Your task to perform on an android device: change the upload size in google photos Image 0: 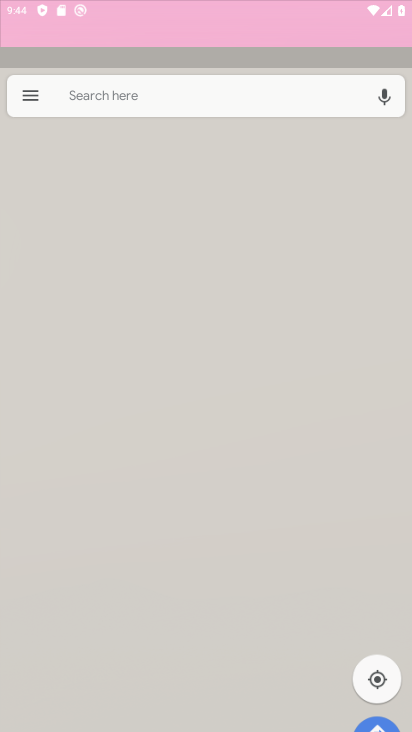
Step 0: press home button
Your task to perform on an android device: change the upload size in google photos Image 1: 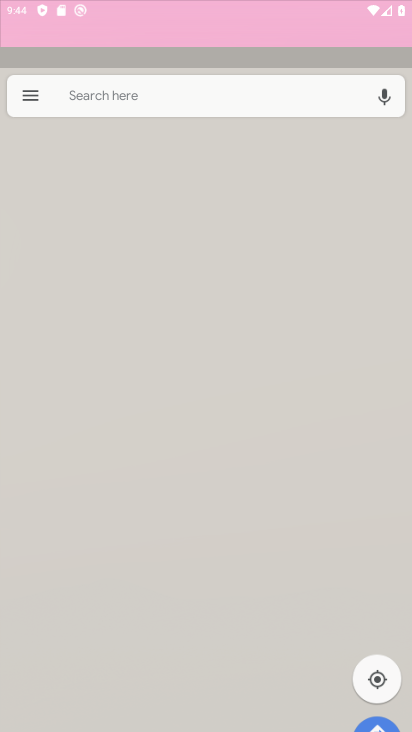
Step 1: click (216, 126)
Your task to perform on an android device: change the upload size in google photos Image 2: 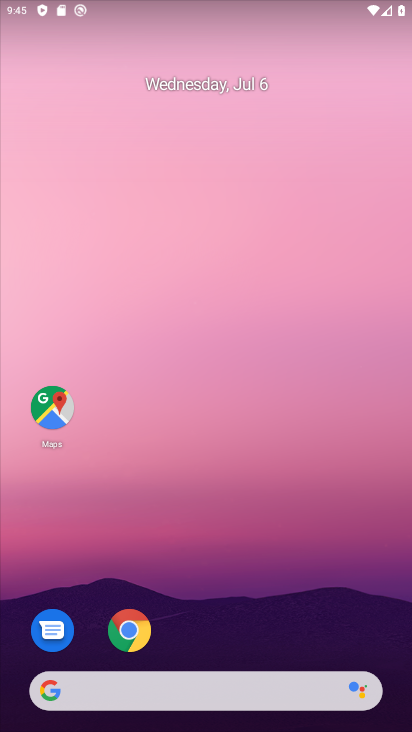
Step 2: drag from (232, 514) to (233, 5)
Your task to perform on an android device: change the upload size in google photos Image 3: 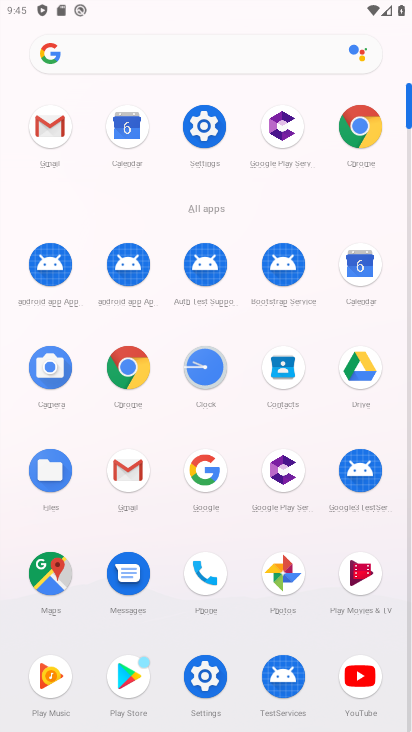
Step 3: click (46, 137)
Your task to perform on an android device: change the upload size in google photos Image 4: 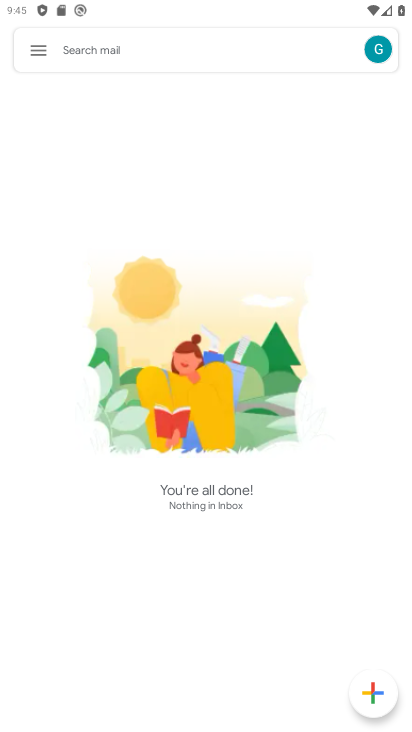
Step 4: click (28, 45)
Your task to perform on an android device: change the upload size in google photos Image 5: 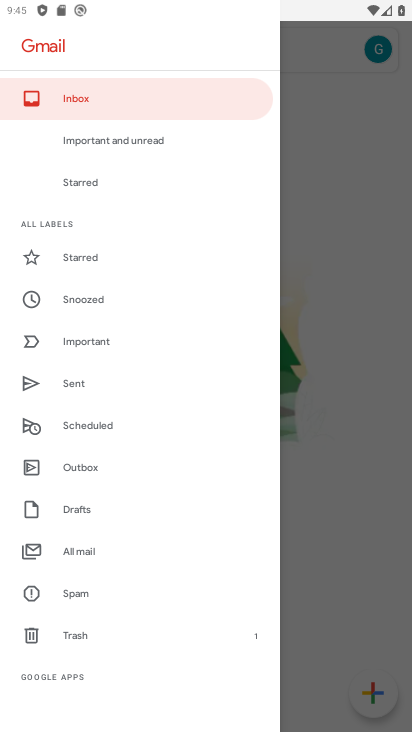
Step 5: drag from (93, 620) to (105, 306)
Your task to perform on an android device: change the upload size in google photos Image 6: 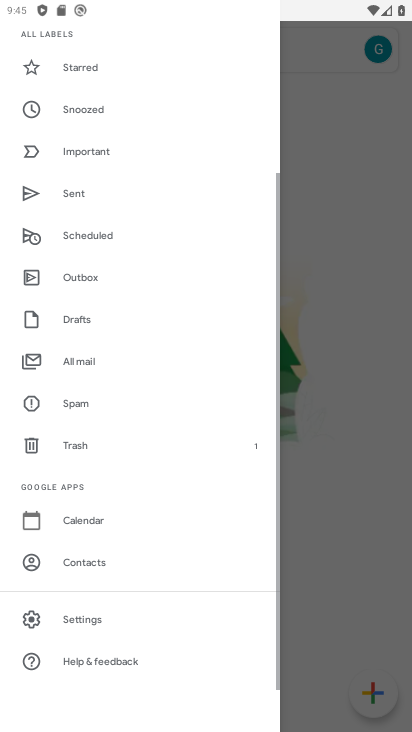
Step 6: click (62, 628)
Your task to perform on an android device: change the upload size in google photos Image 7: 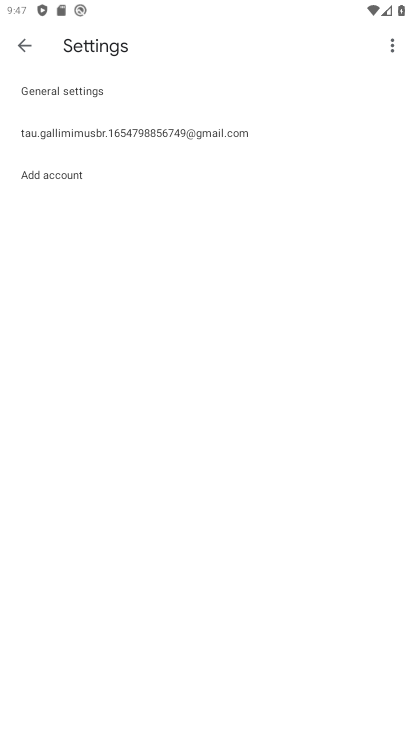
Step 7: press home button
Your task to perform on an android device: change the upload size in google photos Image 8: 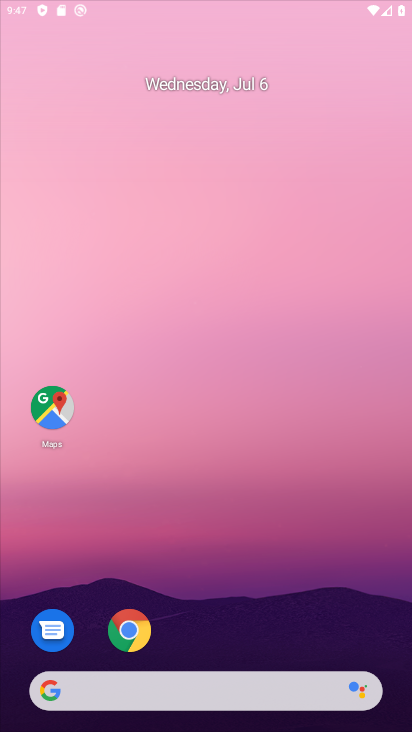
Step 8: drag from (225, 606) to (214, 2)
Your task to perform on an android device: change the upload size in google photos Image 9: 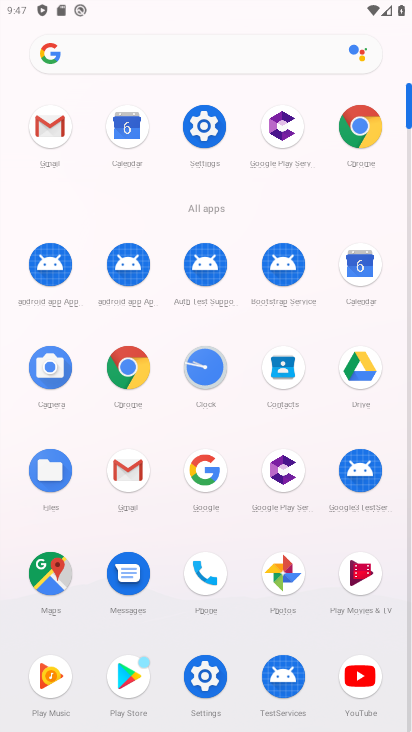
Step 9: click (271, 564)
Your task to perform on an android device: change the upload size in google photos Image 10: 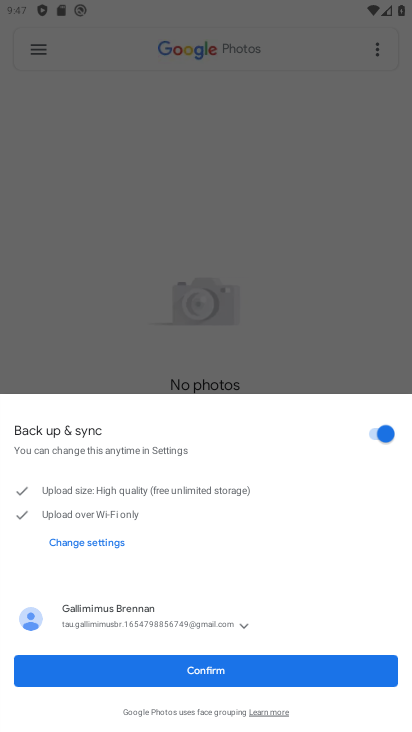
Step 10: click (209, 670)
Your task to perform on an android device: change the upload size in google photos Image 11: 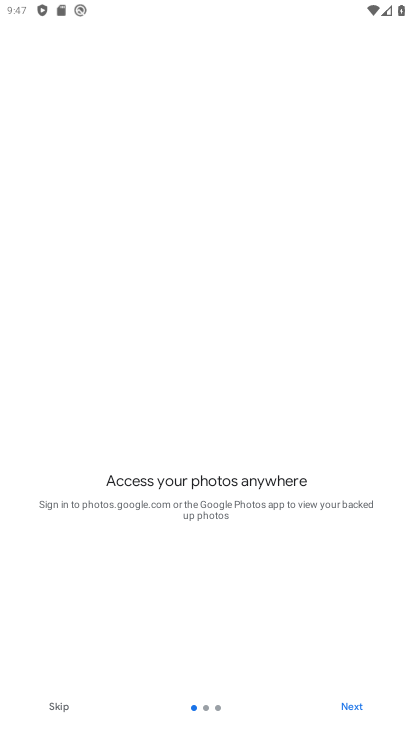
Step 11: click (360, 705)
Your task to perform on an android device: change the upload size in google photos Image 12: 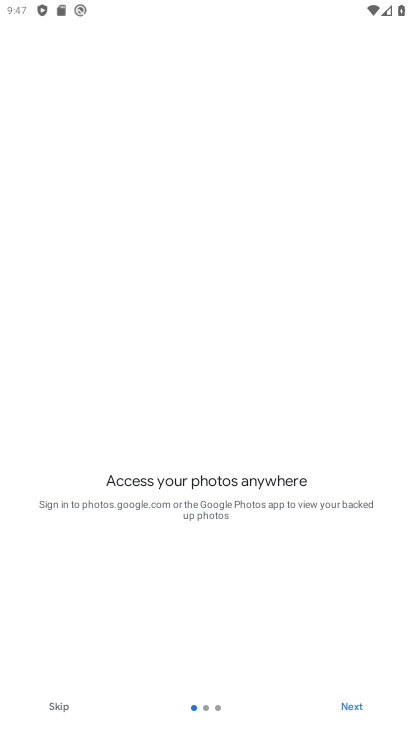
Step 12: click (360, 705)
Your task to perform on an android device: change the upload size in google photos Image 13: 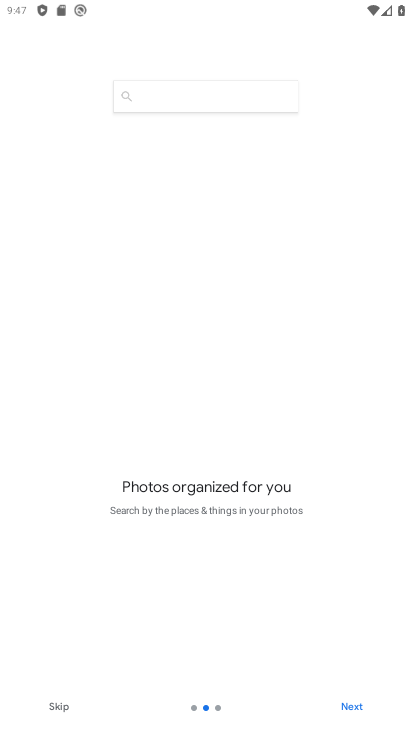
Step 13: click (360, 705)
Your task to perform on an android device: change the upload size in google photos Image 14: 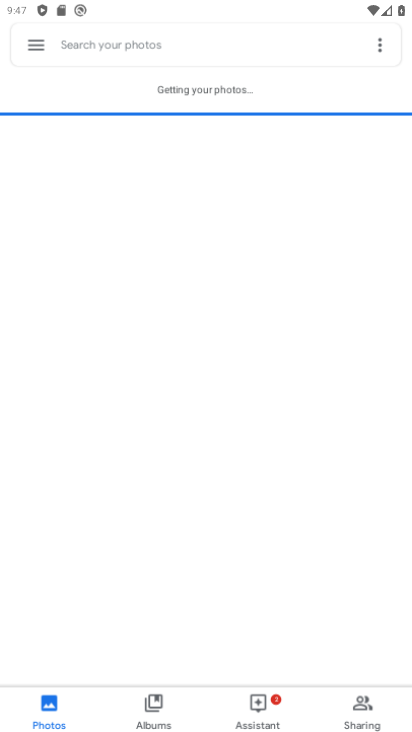
Step 14: click (360, 705)
Your task to perform on an android device: change the upload size in google photos Image 15: 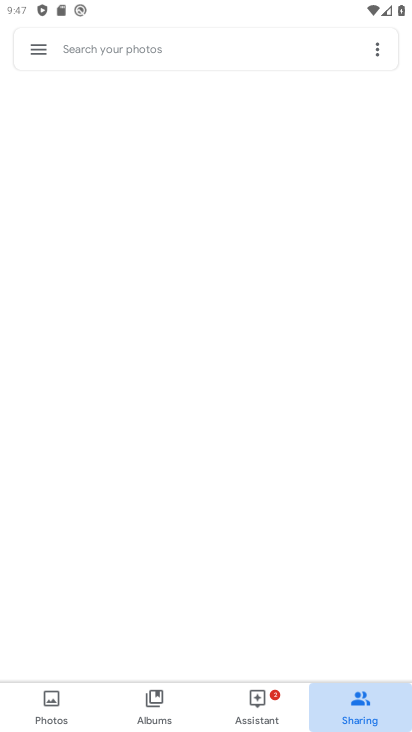
Step 15: click (360, 705)
Your task to perform on an android device: change the upload size in google photos Image 16: 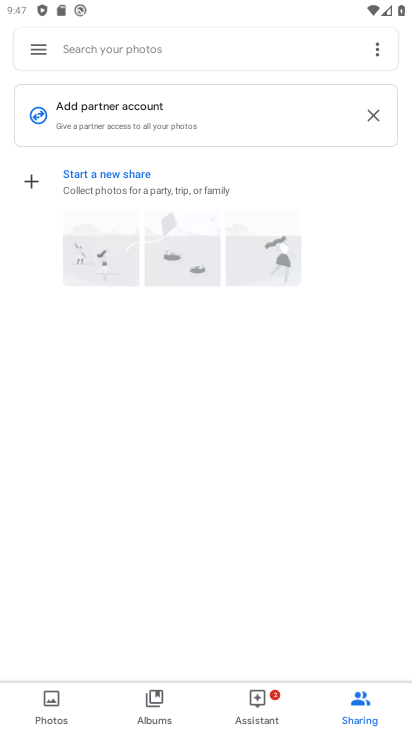
Step 16: click (54, 687)
Your task to perform on an android device: change the upload size in google photos Image 17: 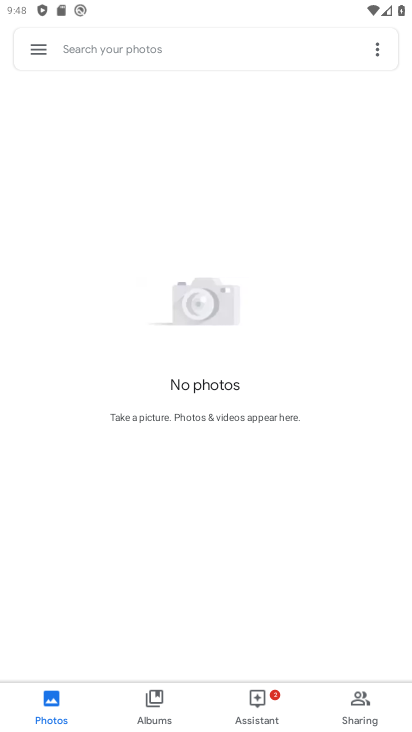
Step 17: click (34, 46)
Your task to perform on an android device: change the upload size in google photos Image 18: 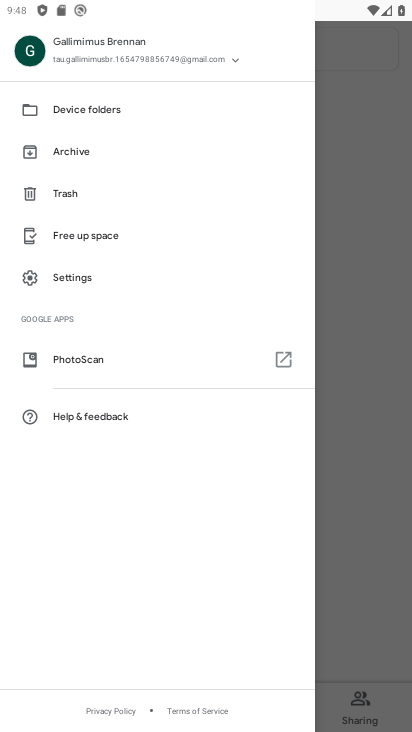
Step 18: click (57, 272)
Your task to perform on an android device: change the upload size in google photos Image 19: 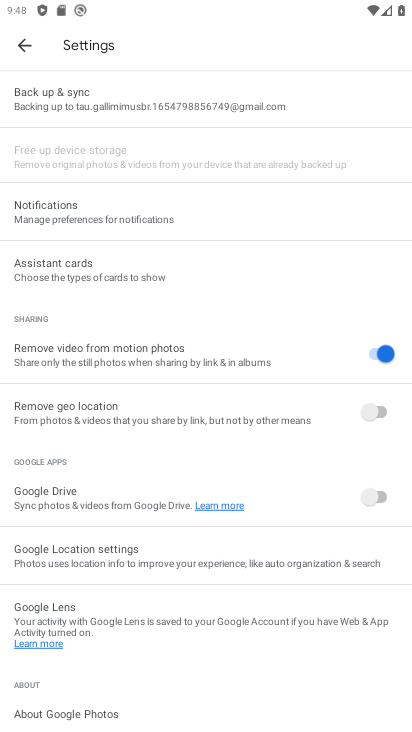
Step 19: drag from (106, 537) to (126, 34)
Your task to perform on an android device: change the upload size in google photos Image 20: 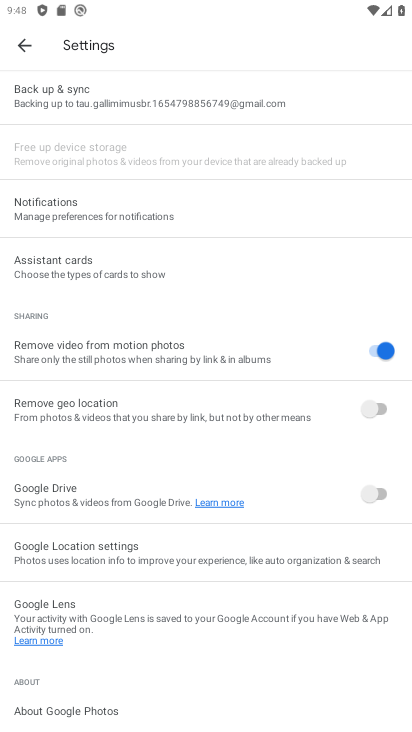
Step 20: drag from (125, 196) to (109, 363)
Your task to perform on an android device: change the upload size in google photos Image 21: 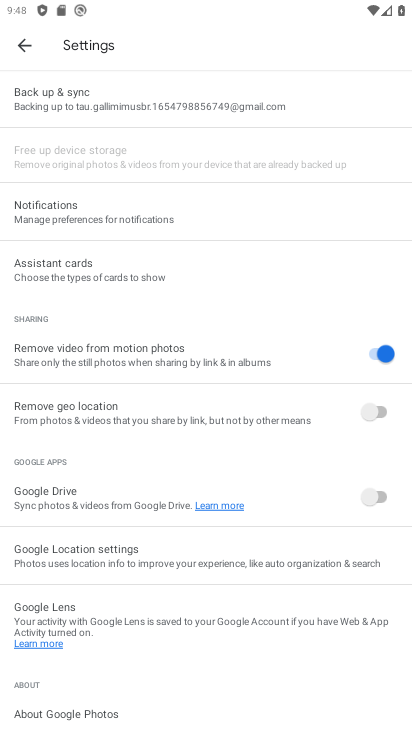
Step 21: click (61, 106)
Your task to perform on an android device: change the upload size in google photos Image 22: 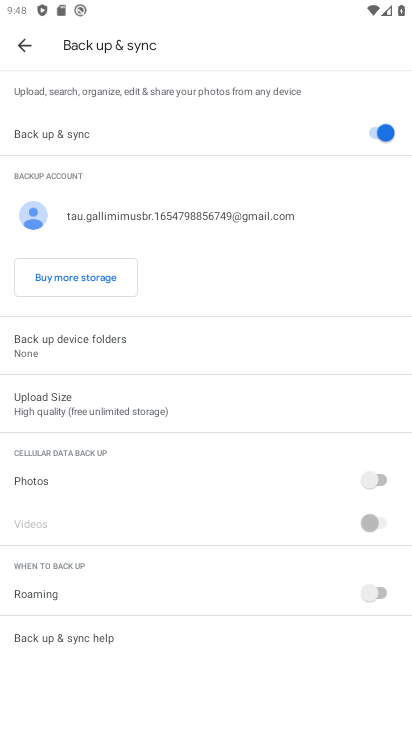
Step 22: click (67, 399)
Your task to perform on an android device: change the upload size in google photos Image 23: 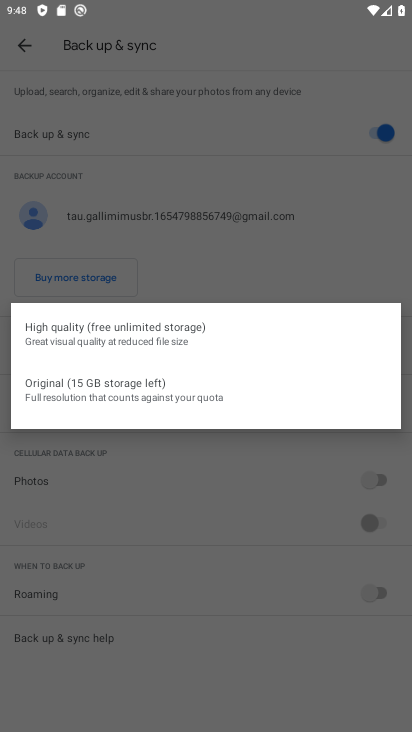
Step 23: click (65, 388)
Your task to perform on an android device: change the upload size in google photos Image 24: 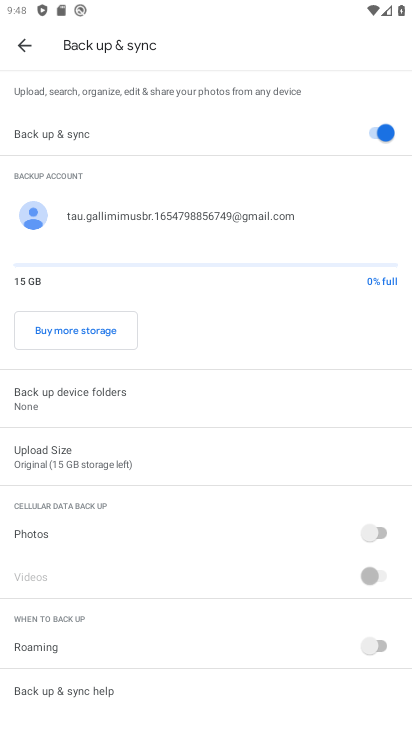
Step 24: task complete